Your task to perform on an android device: Open calendar and show me the first week of next month Image 0: 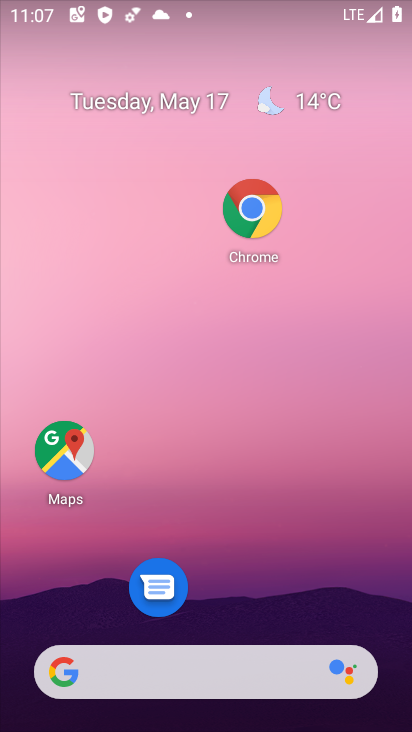
Step 0: click (136, 112)
Your task to perform on an android device: Open calendar and show me the first week of next month Image 1: 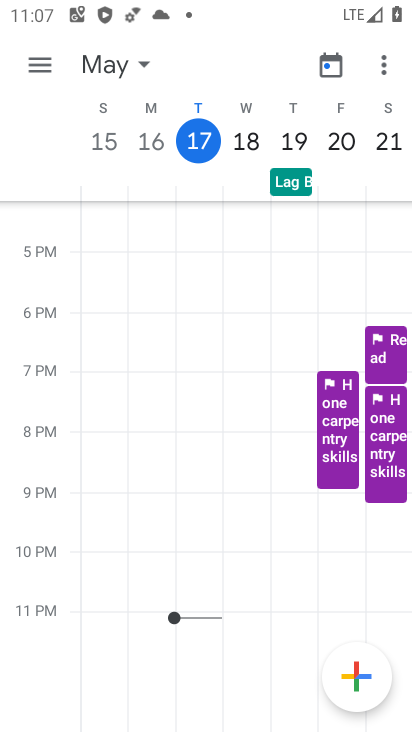
Step 1: click (143, 59)
Your task to perform on an android device: Open calendar and show me the first week of next month Image 2: 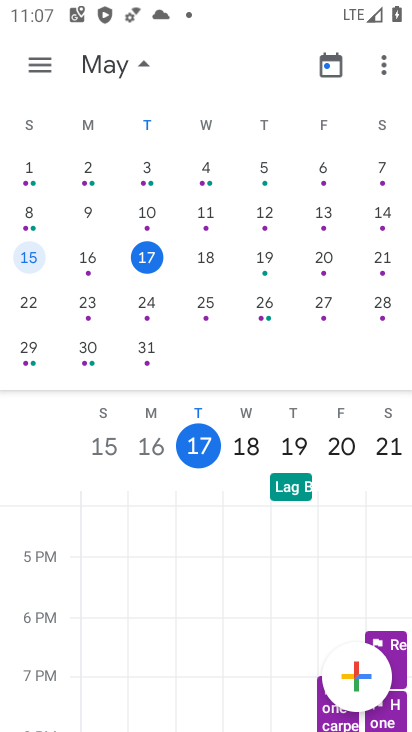
Step 2: drag from (350, 250) to (0, 248)
Your task to perform on an android device: Open calendar and show me the first week of next month Image 3: 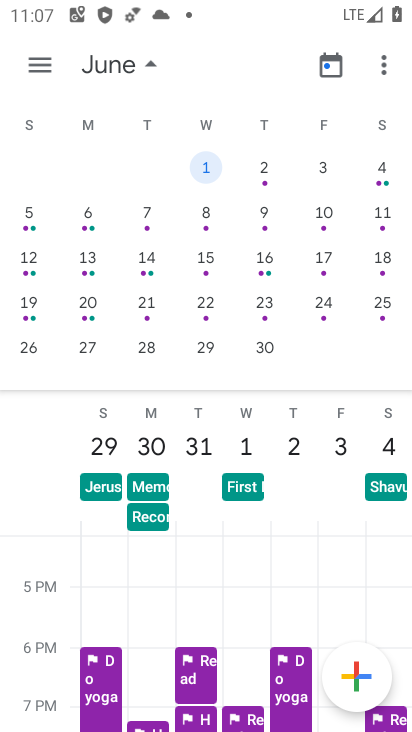
Step 3: click (262, 167)
Your task to perform on an android device: Open calendar and show me the first week of next month Image 4: 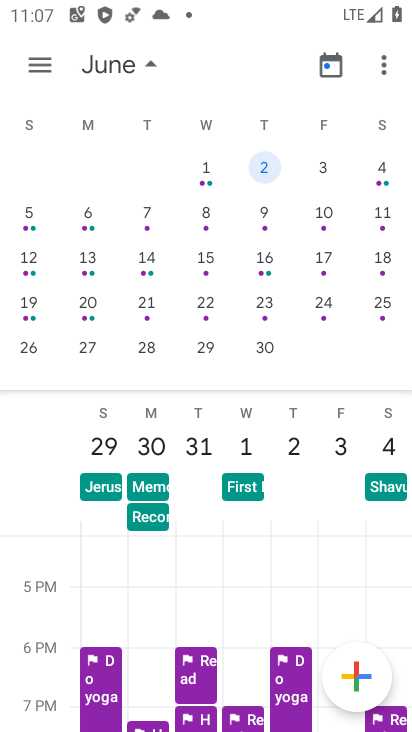
Step 4: task complete